Your task to perform on an android device: Open battery settings Image 0: 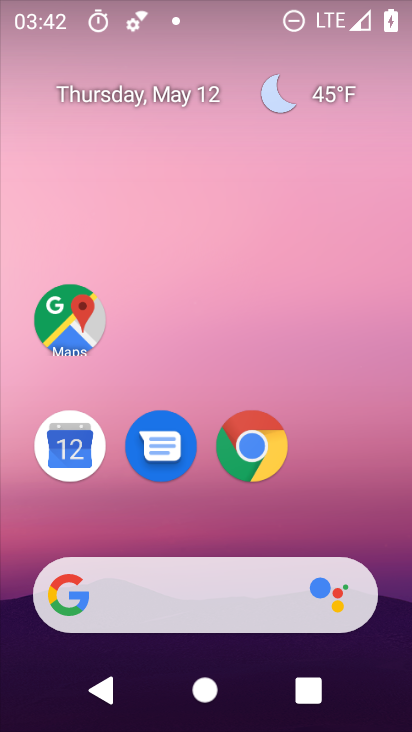
Step 0: drag from (190, 480) to (176, 188)
Your task to perform on an android device: Open battery settings Image 1: 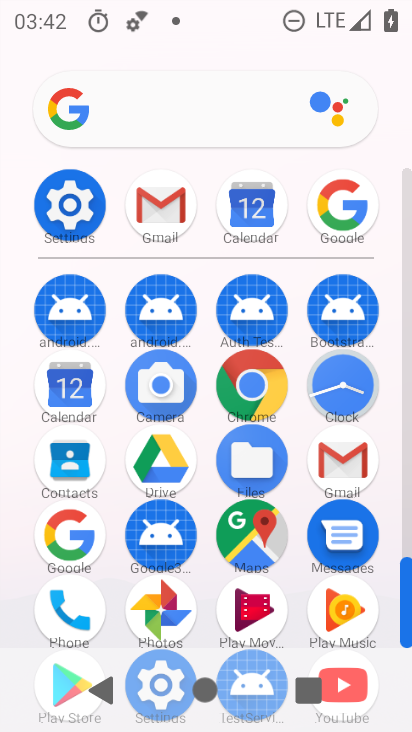
Step 1: click (91, 203)
Your task to perform on an android device: Open battery settings Image 2: 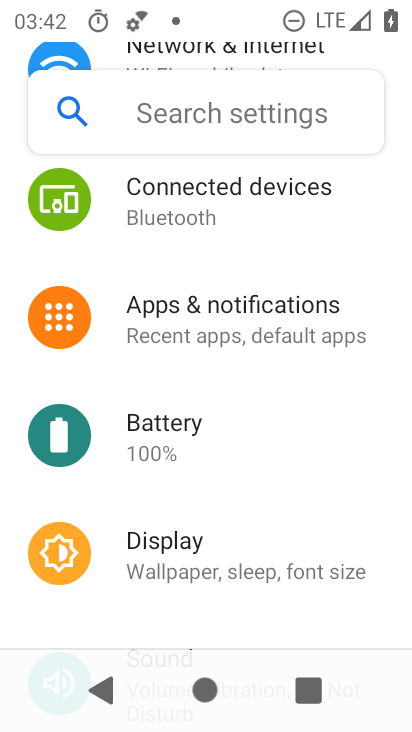
Step 2: click (212, 441)
Your task to perform on an android device: Open battery settings Image 3: 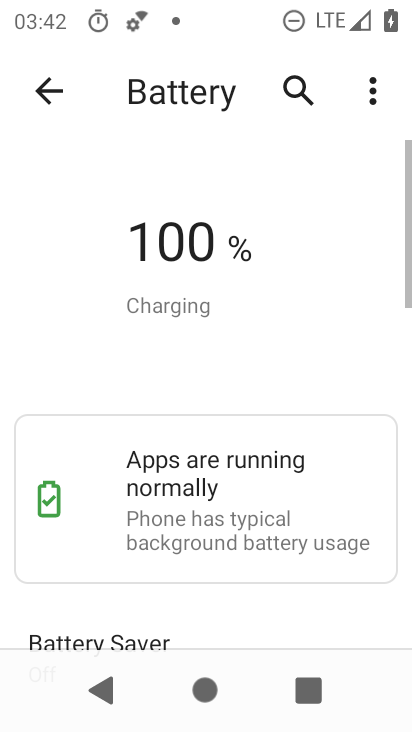
Step 3: task complete